Your task to perform on an android device: Search for seafood restaurants on Google Maps Image 0: 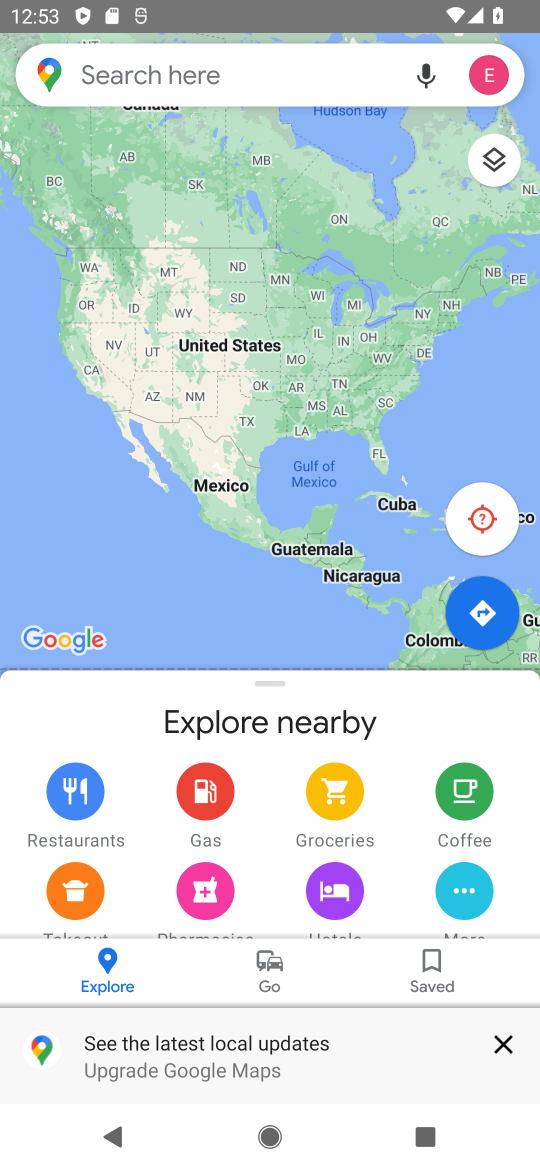
Step 0: press back button
Your task to perform on an android device: Search for seafood restaurants on Google Maps Image 1: 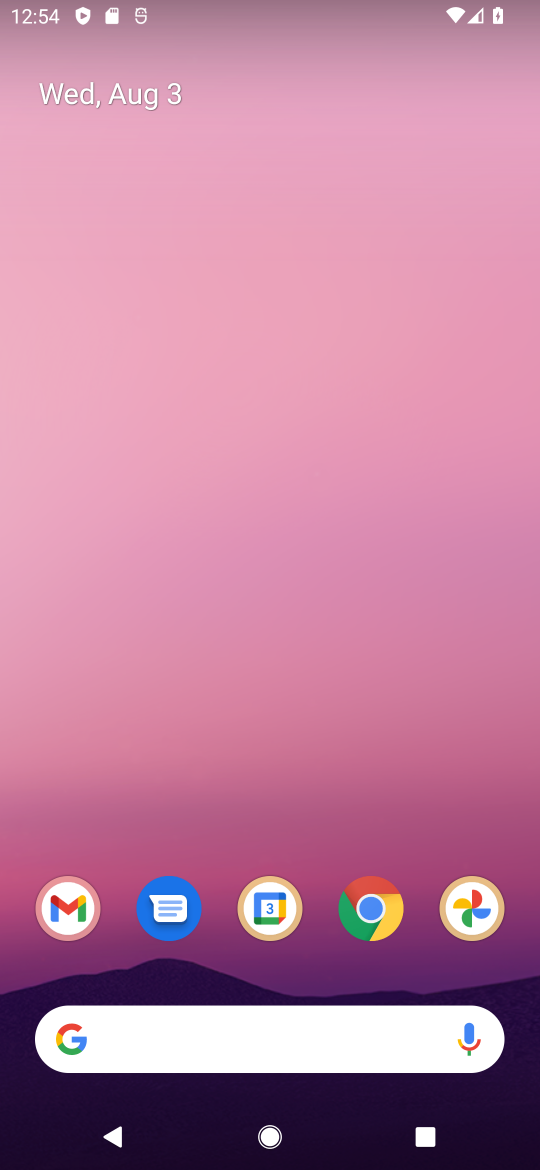
Step 1: drag from (220, 861) to (303, 194)
Your task to perform on an android device: Search for seafood restaurants on Google Maps Image 2: 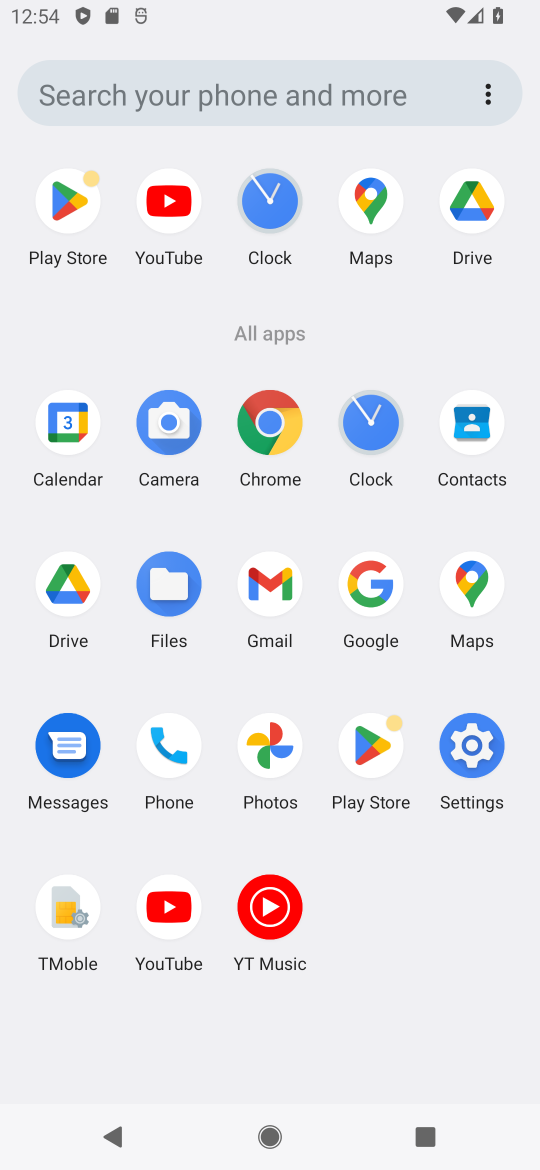
Step 2: click (464, 596)
Your task to perform on an android device: Search for seafood restaurants on Google Maps Image 3: 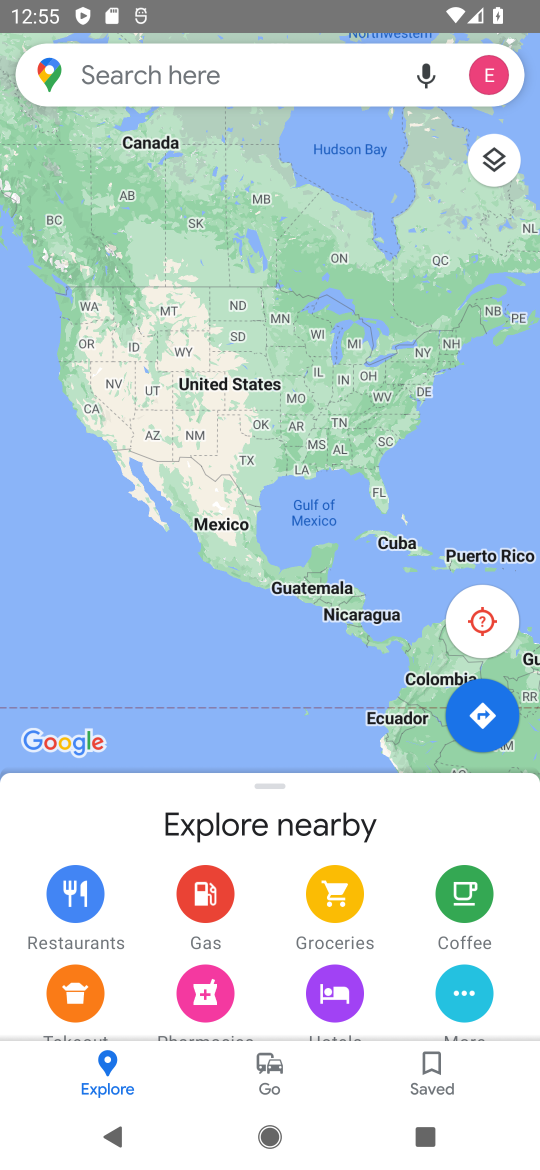
Step 3: click (184, 80)
Your task to perform on an android device: Search for seafood restaurants on Google Maps Image 4: 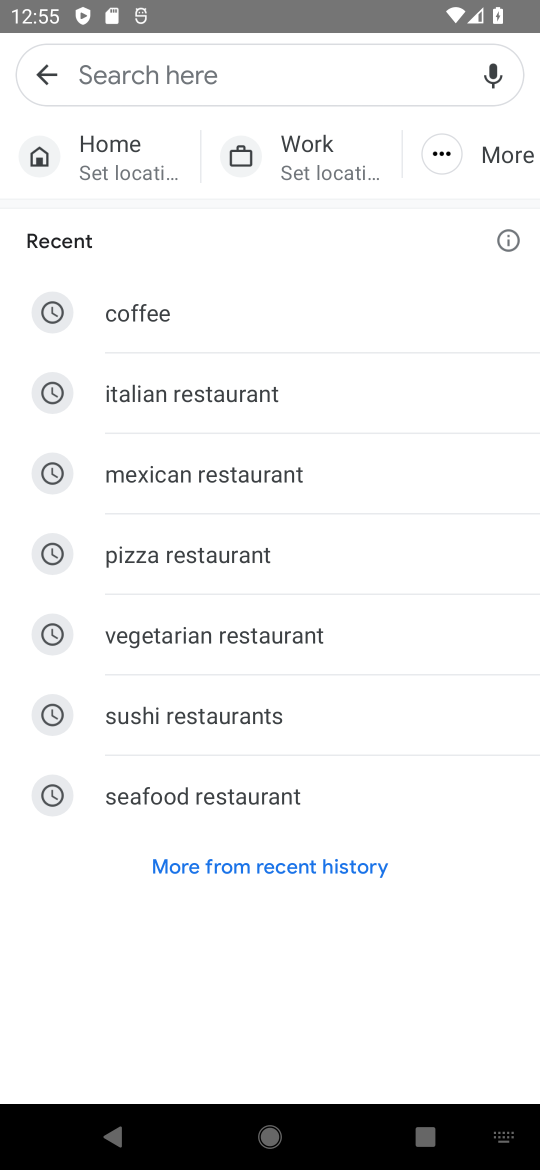
Step 4: type "seafood restaurants"
Your task to perform on an android device: Search for seafood restaurants on Google Maps Image 5: 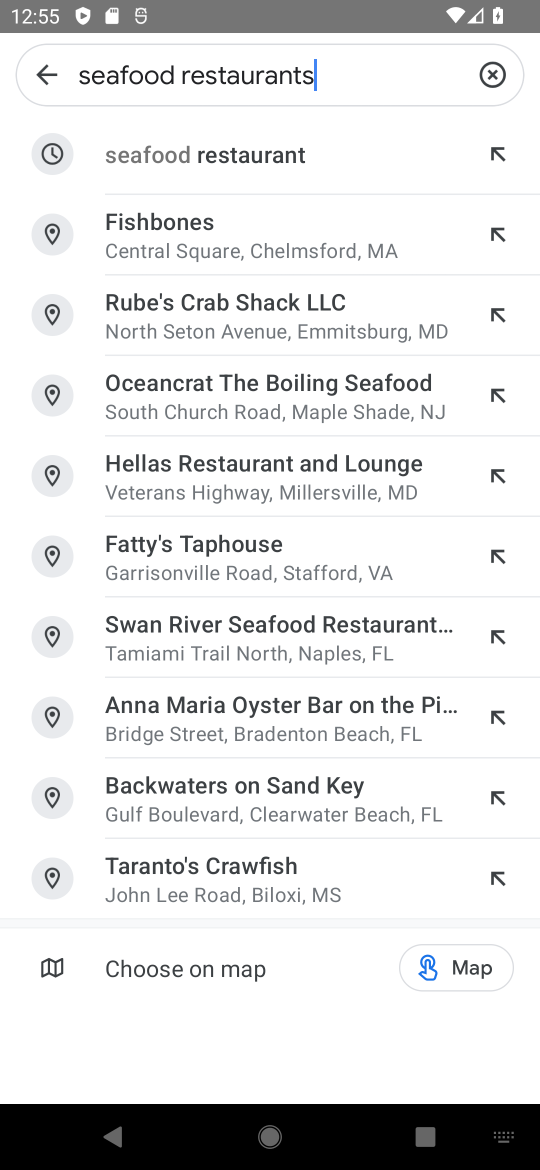
Step 5: click (171, 160)
Your task to perform on an android device: Search for seafood restaurants on Google Maps Image 6: 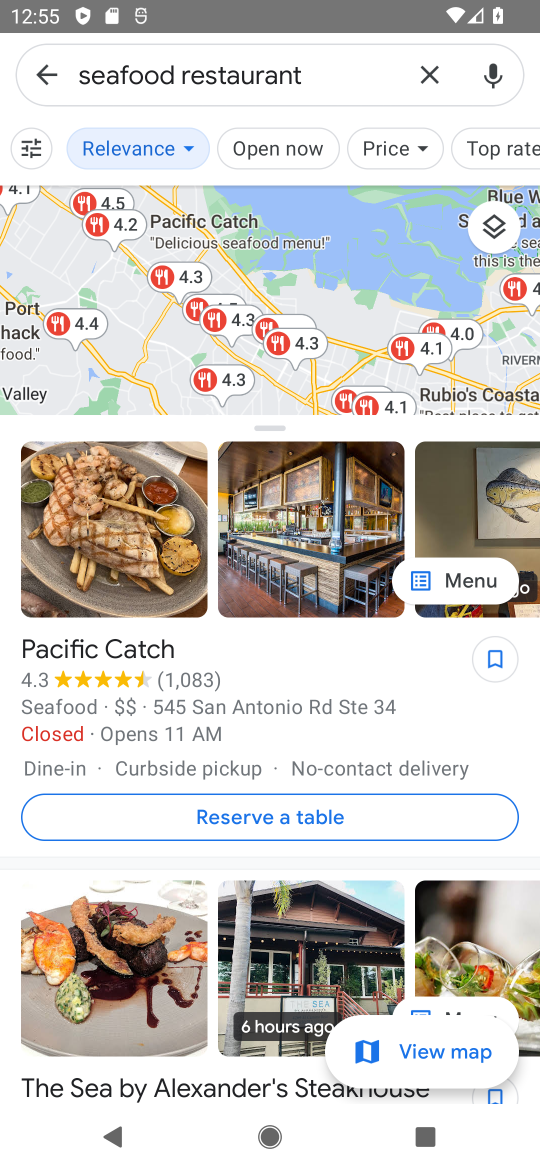
Step 6: task complete